Your task to perform on an android device: Open settings on Google Maps Image 0: 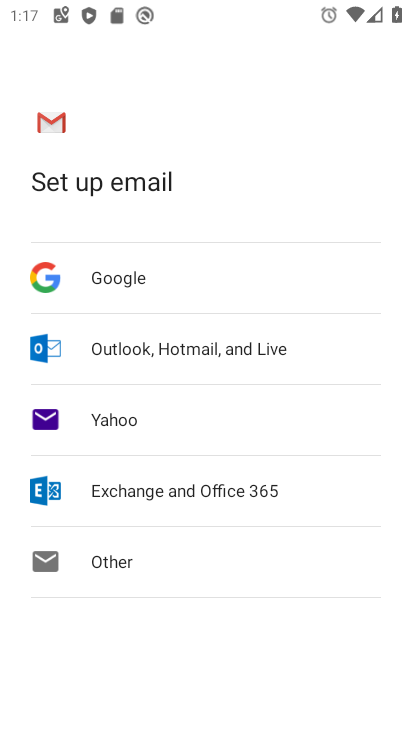
Step 0: press home button
Your task to perform on an android device: Open settings on Google Maps Image 1: 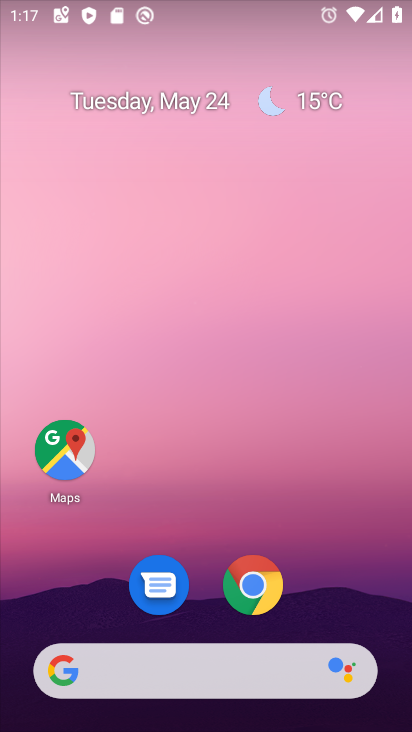
Step 1: click (61, 436)
Your task to perform on an android device: Open settings on Google Maps Image 2: 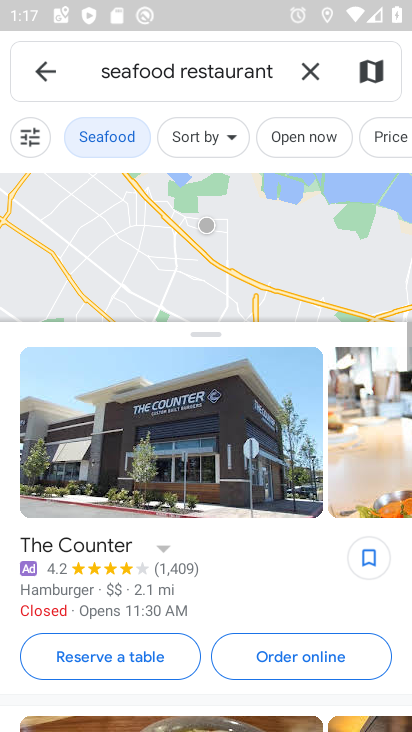
Step 2: click (48, 61)
Your task to perform on an android device: Open settings on Google Maps Image 3: 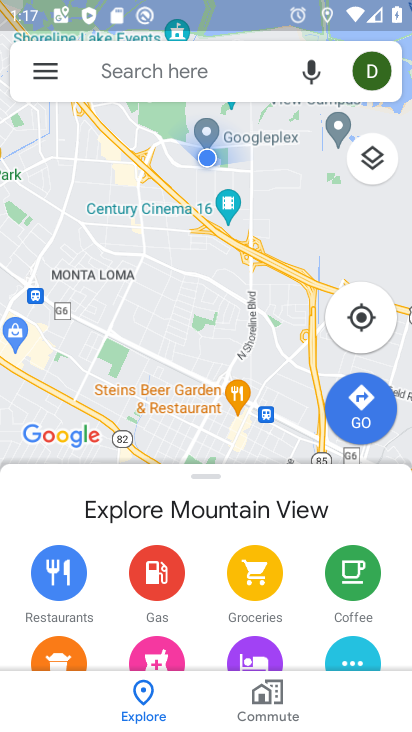
Step 3: click (48, 67)
Your task to perform on an android device: Open settings on Google Maps Image 4: 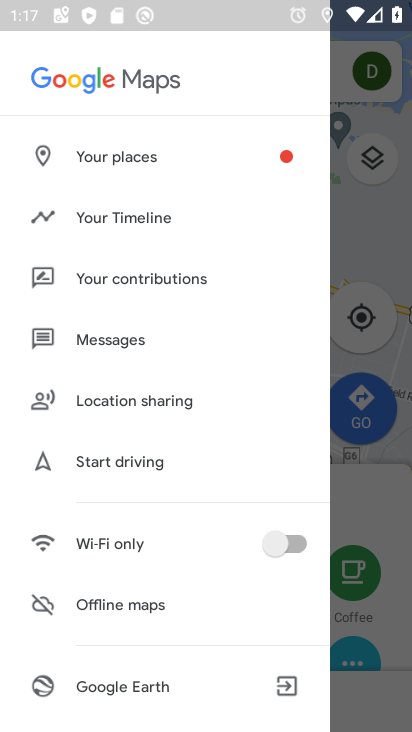
Step 4: drag from (139, 513) to (142, 70)
Your task to perform on an android device: Open settings on Google Maps Image 5: 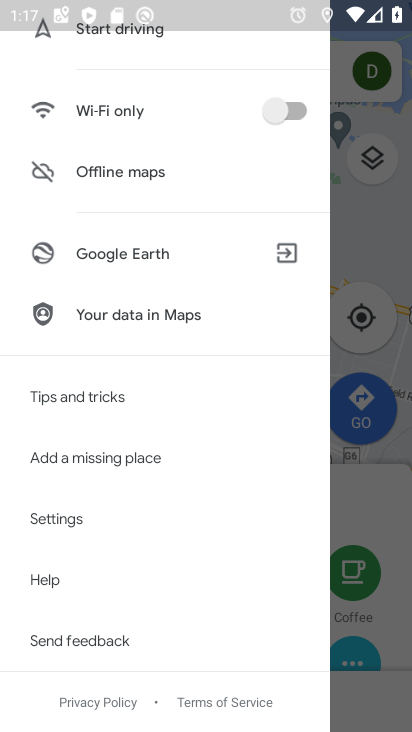
Step 5: click (139, 513)
Your task to perform on an android device: Open settings on Google Maps Image 6: 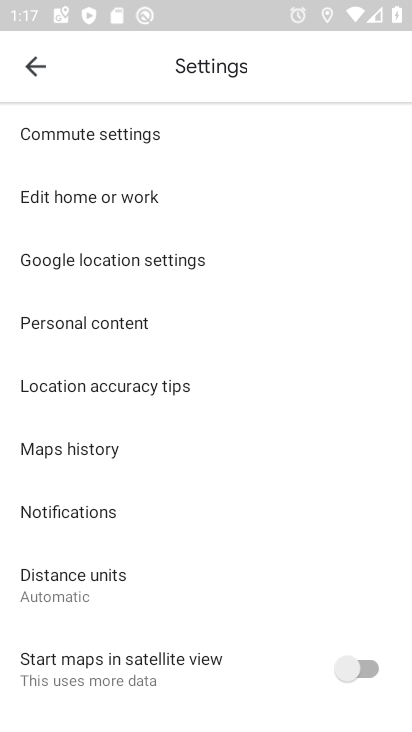
Step 6: task complete